Your task to perform on an android device: Open the Play Movies app and select the watchlist tab. Image 0: 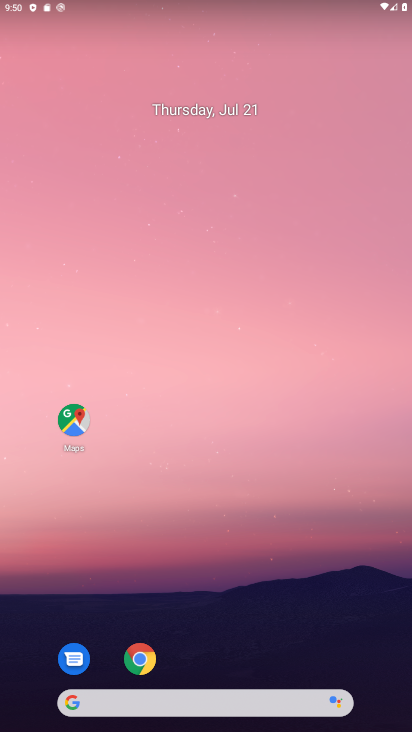
Step 0: drag from (262, 602) to (193, 27)
Your task to perform on an android device: Open the Play Movies app and select the watchlist tab. Image 1: 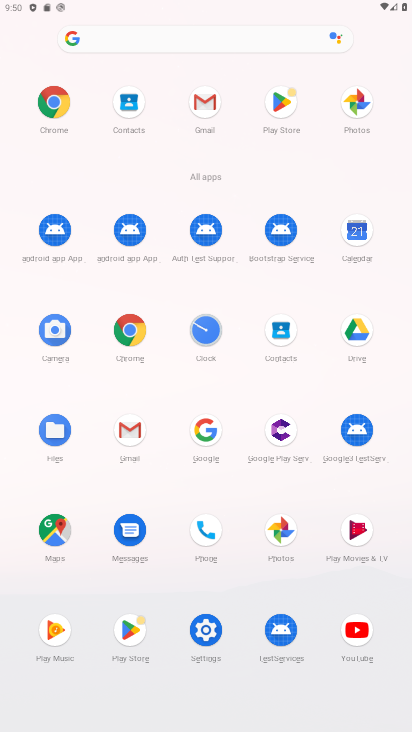
Step 1: click (353, 533)
Your task to perform on an android device: Open the Play Movies app and select the watchlist tab. Image 2: 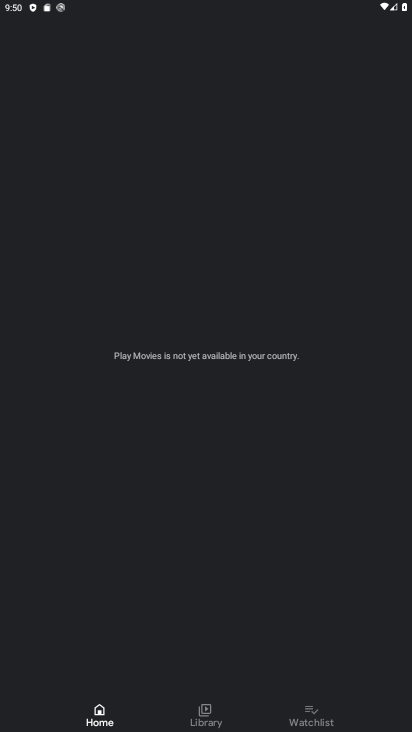
Step 2: click (300, 701)
Your task to perform on an android device: Open the Play Movies app and select the watchlist tab. Image 3: 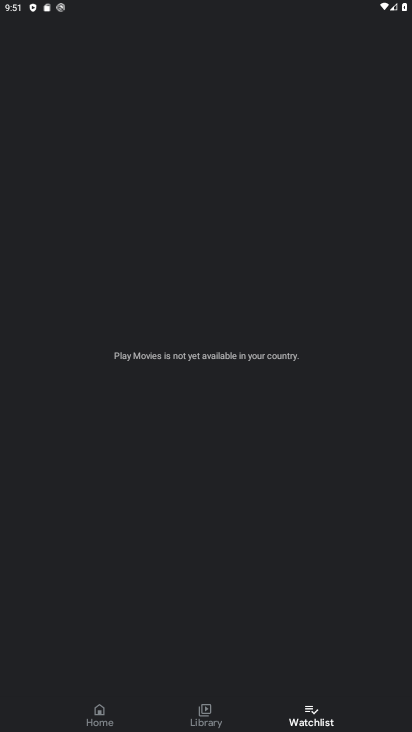
Step 3: task complete